Your task to perform on an android device: Show me popular videos on Youtube Image 0: 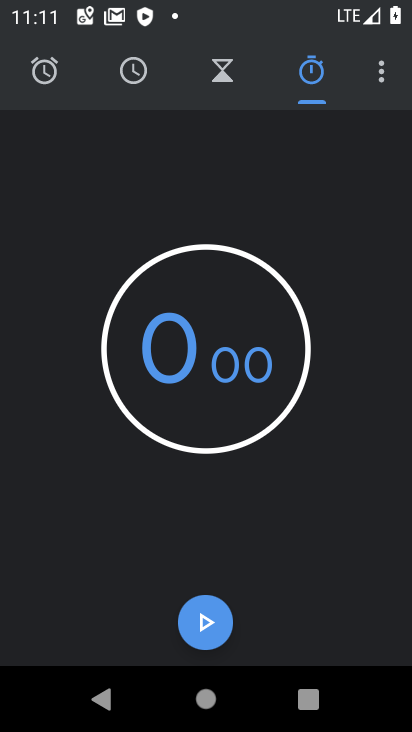
Step 0: press home button
Your task to perform on an android device: Show me popular videos on Youtube Image 1: 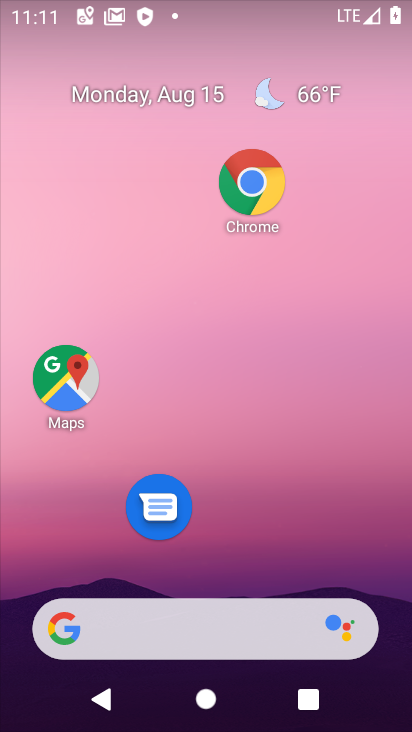
Step 1: drag from (270, 579) to (277, 166)
Your task to perform on an android device: Show me popular videos on Youtube Image 2: 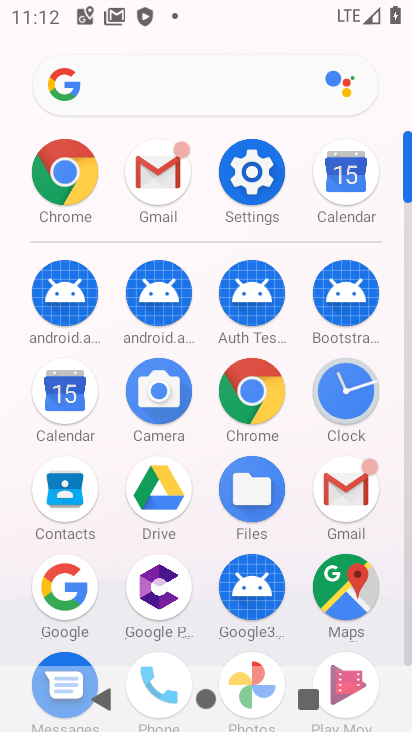
Step 2: click (406, 261)
Your task to perform on an android device: Show me popular videos on Youtube Image 3: 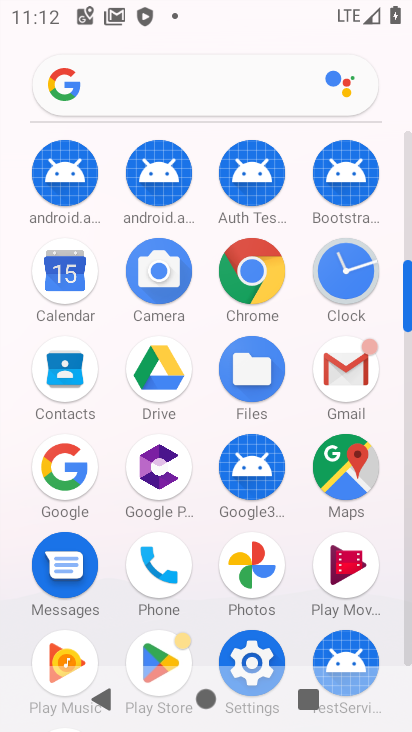
Step 3: click (409, 425)
Your task to perform on an android device: Show me popular videos on Youtube Image 4: 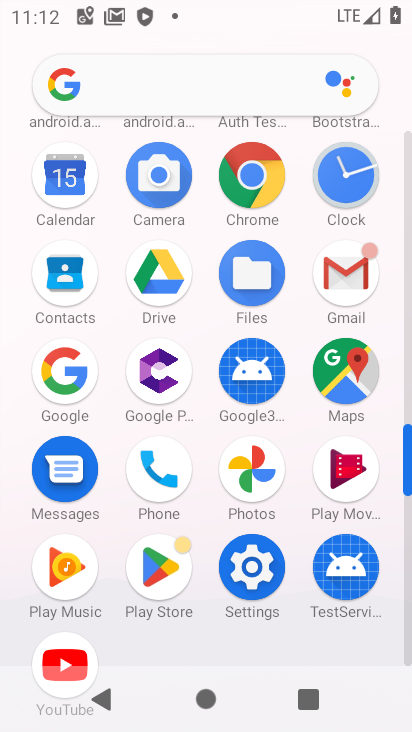
Step 4: click (66, 644)
Your task to perform on an android device: Show me popular videos on Youtube Image 5: 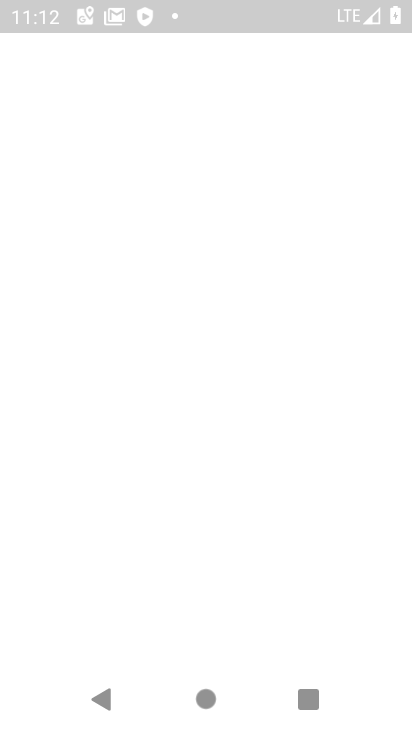
Step 5: task complete